Your task to perform on an android device: Open eBay Image 0: 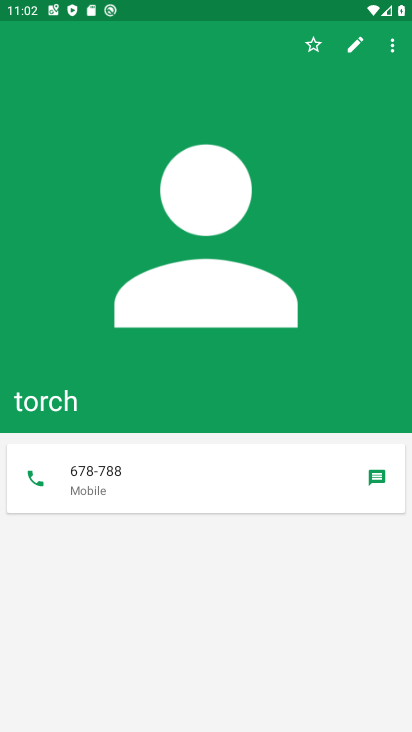
Step 0: press home button
Your task to perform on an android device: Open eBay Image 1: 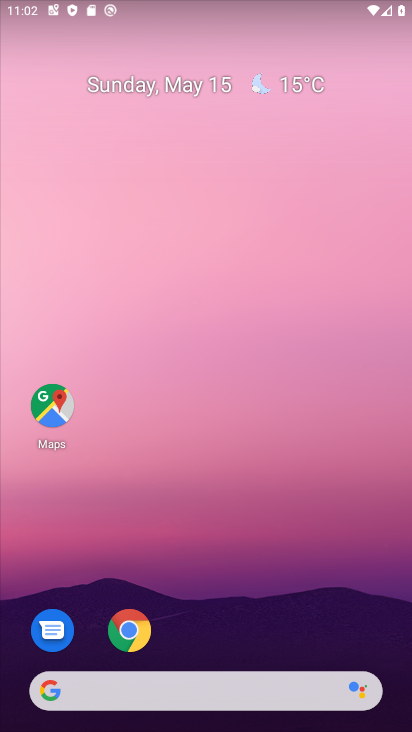
Step 1: click (127, 632)
Your task to perform on an android device: Open eBay Image 2: 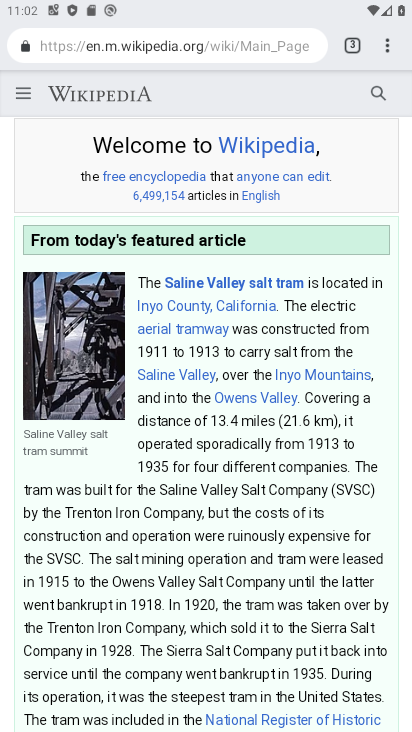
Step 2: click (385, 48)
Your task to perform on an android device: Open eBay Image 3: 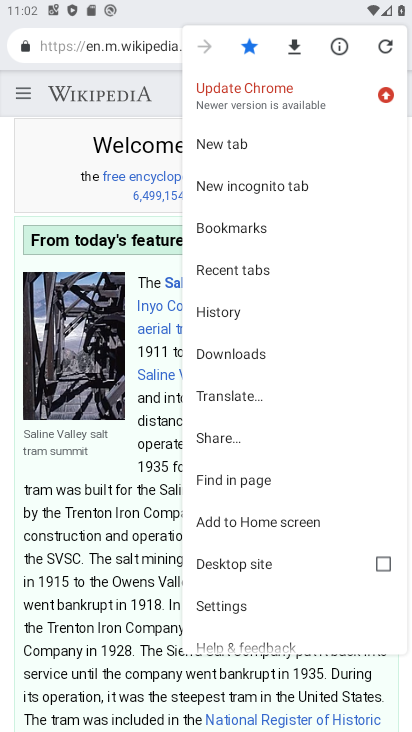
Step 3: click (213, 146)
Your task to perform on an android device: Open eBay Image 4: 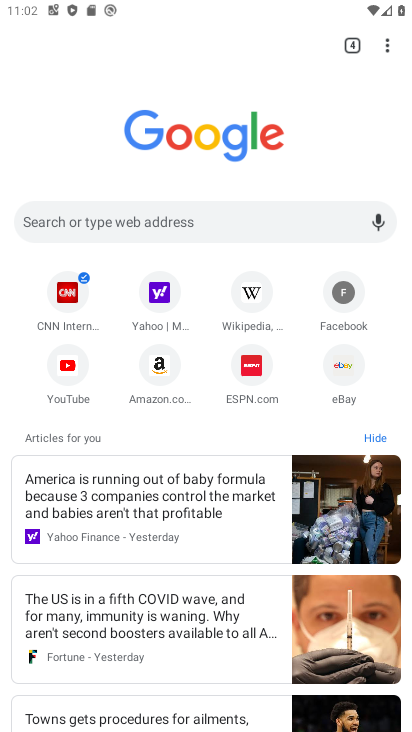
Step 4: click (189, 218)
Your task to perform on an android device: Open eBay Image 5: 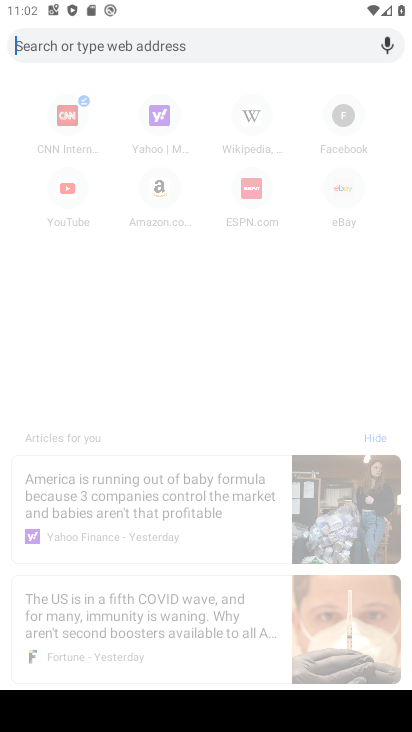
Step 5: type "eBay"
Your task to perform on an android device: Open eBay Image 6: 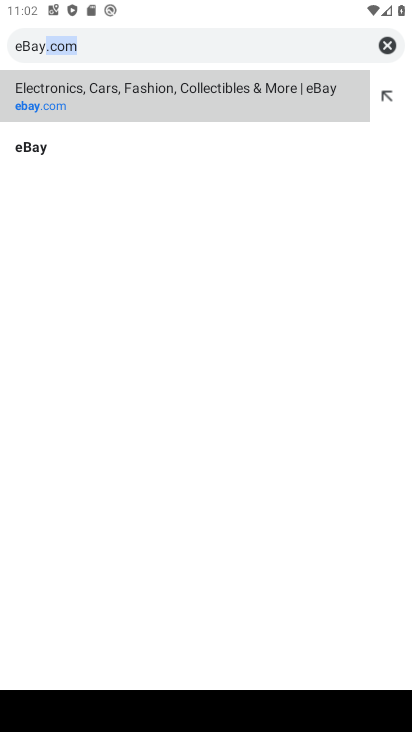
Step 6: click (63, 93)
Your task to perform on an android device: Open eBay Image 7: 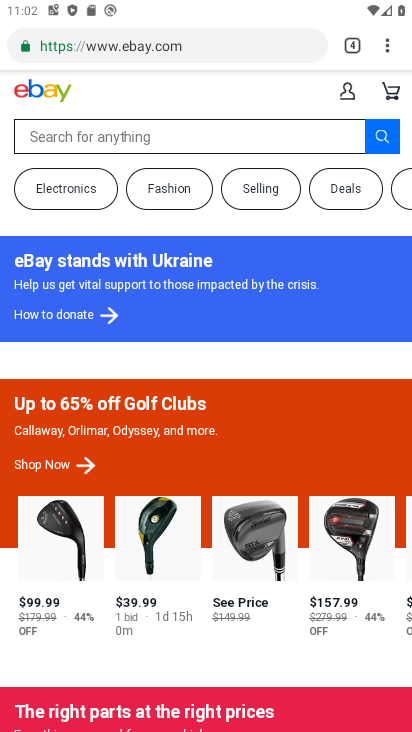
Step 7: task complete